Your task to perform on an android device: Is it going to rain this weekend? Image 0: 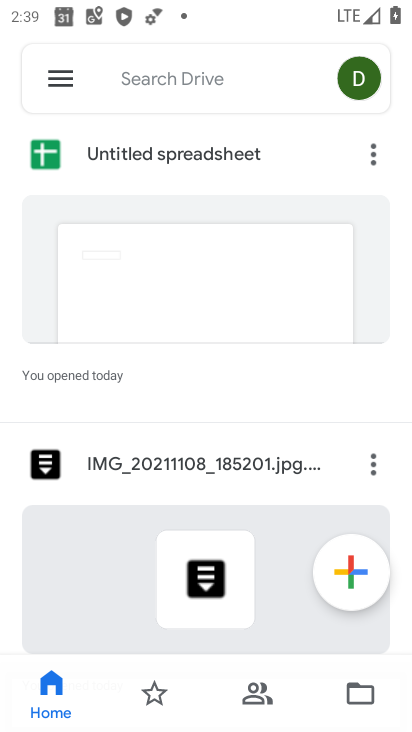
Step 0: press home button
Your task to perform on an android device: Is it going to rain this weekend? Image 1: 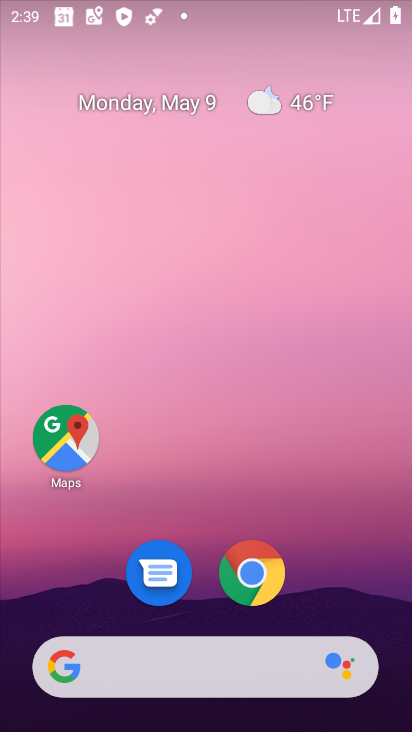
Step 1: drag from (203, 595) to (230, 102)
Your task to perform on an android device: Is it going to rain this weekend? Image 2: 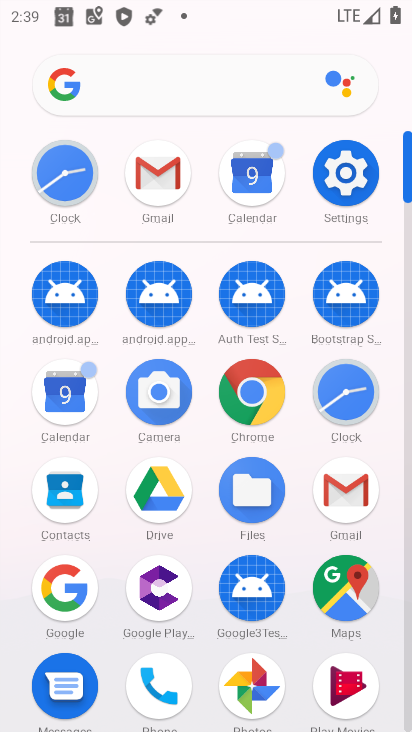
Step 2: click (69, 394)
Your task to perform on an android device: Is it going to rain this weekend? Image 3: 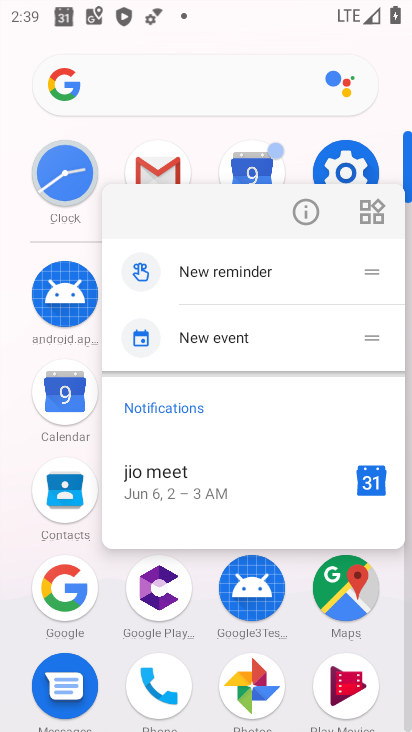
Step 3: click (228, 41)
Your task to perform on an android device: Is it going to rain this weekend? Image 4: 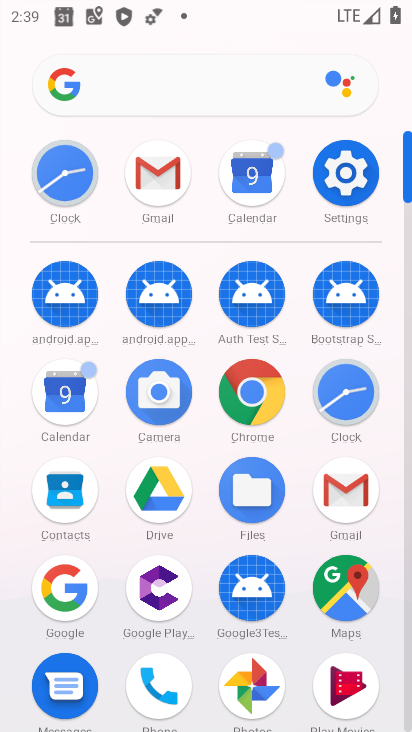
Step 4: click (81, 585)
Your task to perform on an android device: Is it going to rain this weekend? Image 5: 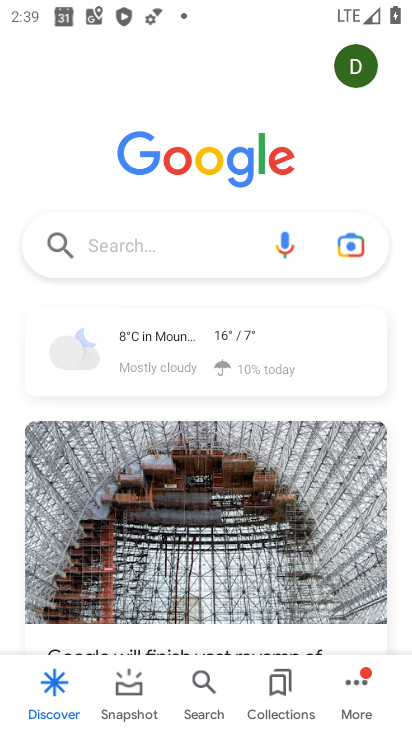
Step 5: click (165, 236)
Your task to perform on an android device: Is it going to rain this weekend? Image 6: 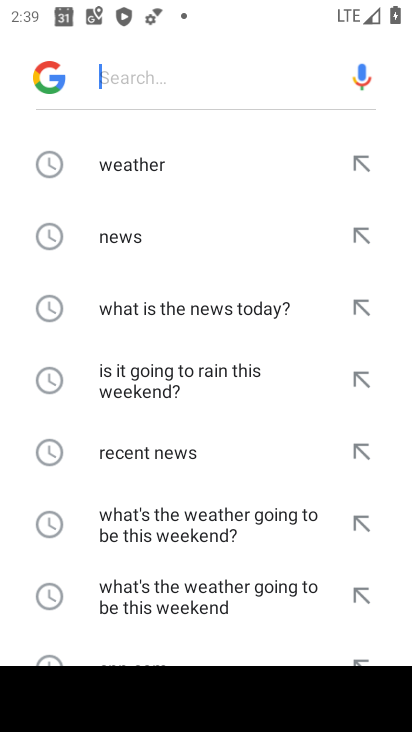
Step 6: click (167, 382)
Your task to perform on an android device: Is it going to rain this weekend? Image 7: 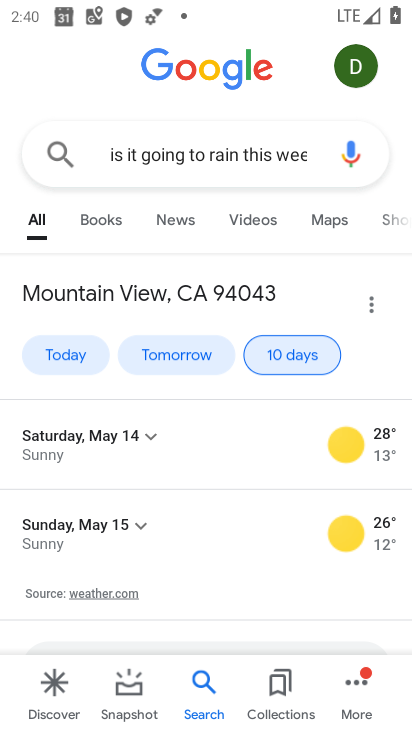
Step 7: task complete